Your task to perform on an android device: Open calendar and show me the fourth week of next month Image 0: 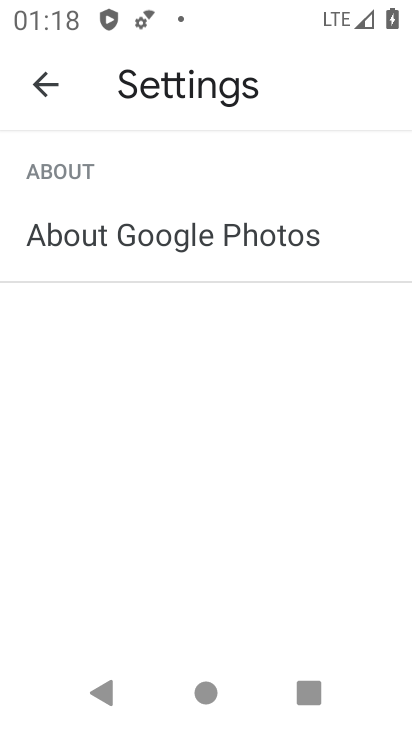
Step 0: press home button
Your task to perform on an android device: Open calendar and show me the fourth week of next month Image 1: 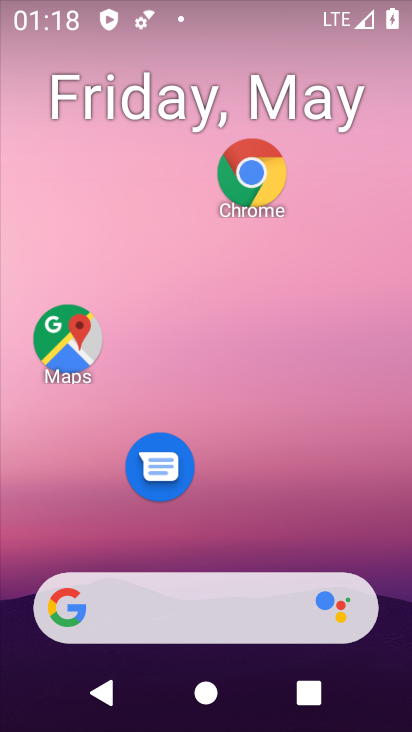
Step 1: drag from (271, 652) to (335, 12)
Your task to perform on an android device: Open calendar and show me the fourth week of next month Image 2: 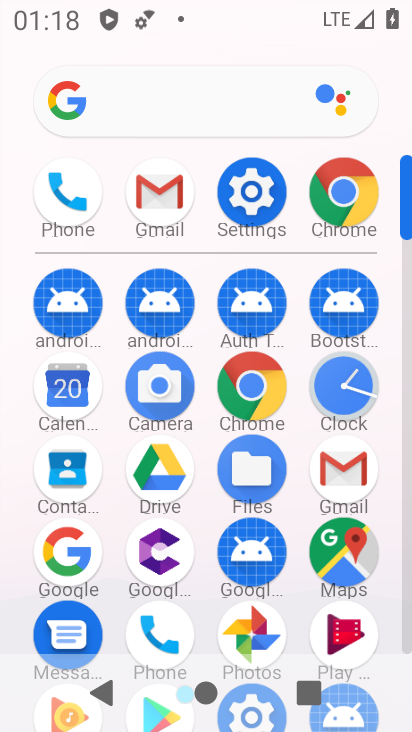
Step 2: click (61, 396)
Your task to perform on an android device: Open calendar and show me the fourth week of next month Image 3: 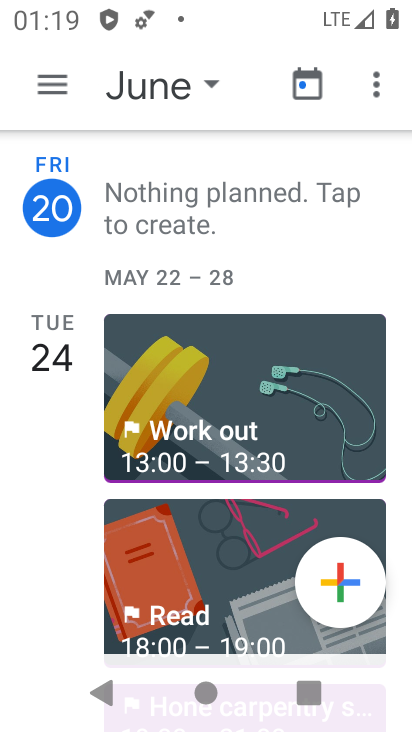
Step 3: click (62, 93)
Your task to perform on an android device: Open calendar and show me the fourth week of next month Image 4: 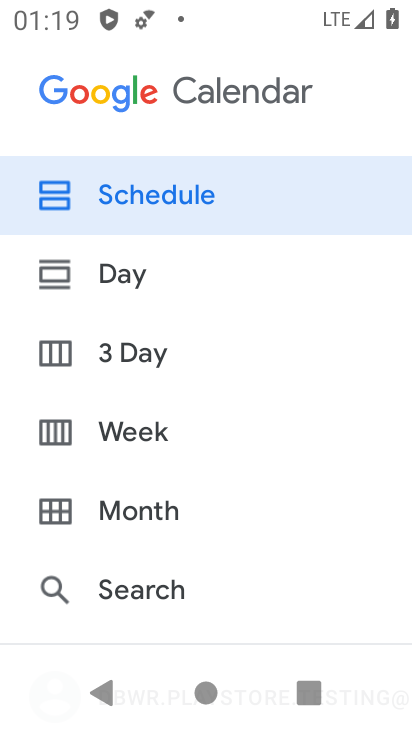
Step 4: click (179, 512)
Your task to perform on an android device: Open calendar and show me the fourth week of next month Image 5: 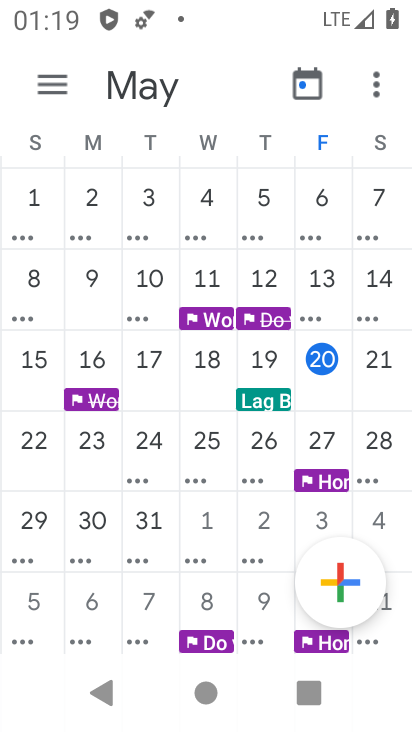
Step 5: drag from (407, 419) to (2, 476)
Your task to perform on an android device: Open calendar and show me the fourth week of next month Image 6: 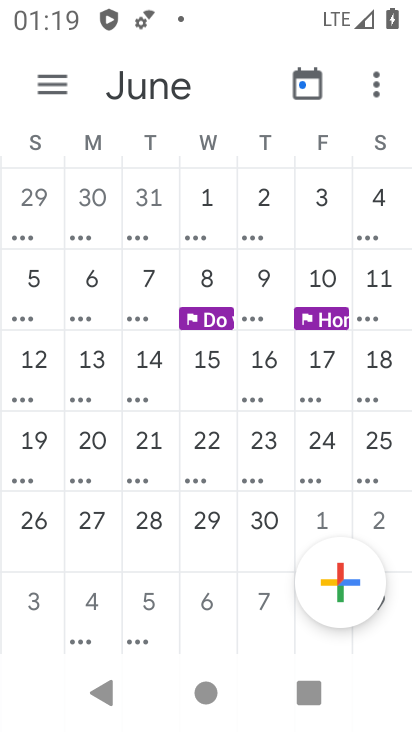
Step 6: click (86, 456)
Your task to perform on an android device: Open calendar and show me the fourth week of next month Image 7: 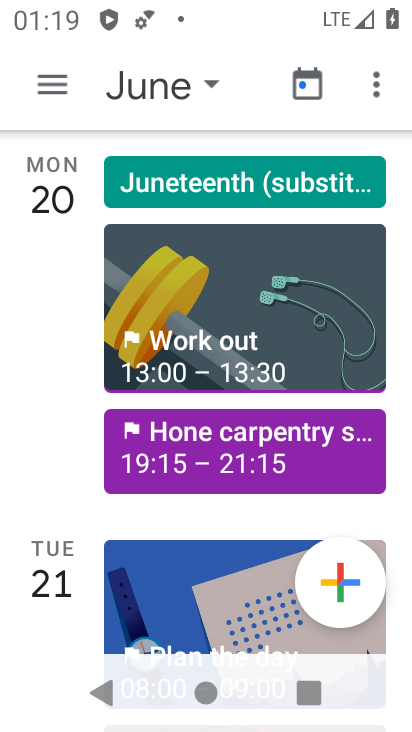
Step 7: task complete